Your task to perform on an android device: show emergency info Image 0: 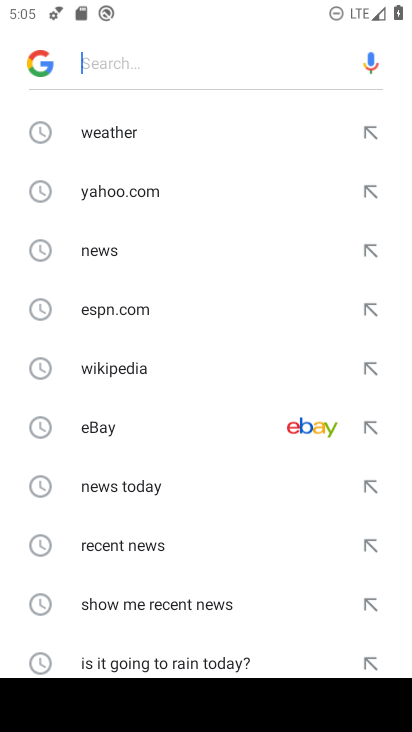
Step 0: press home button
Your task to perform on an android device: show emergency info Image 1: 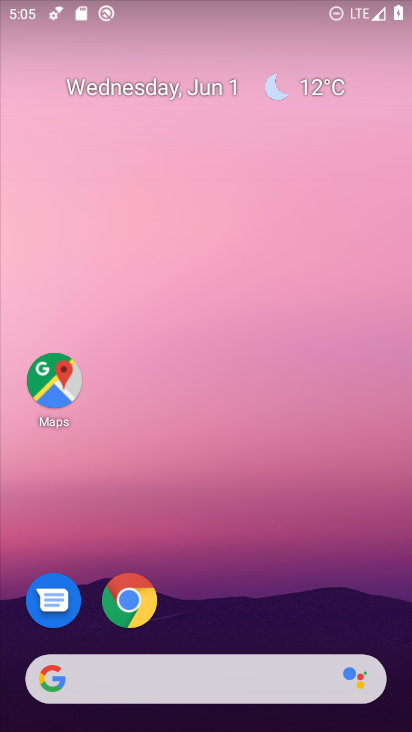
Step 1: drag from (369, 620) to (295, 209)
Your task to perform on an android device: show emergency info Image 2: 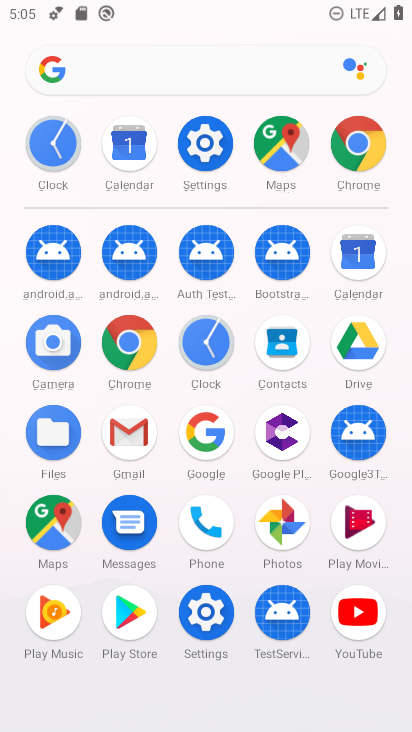
Step 2: click (208, 612)
Your task to perform on an android device: show emergency info Image 3: 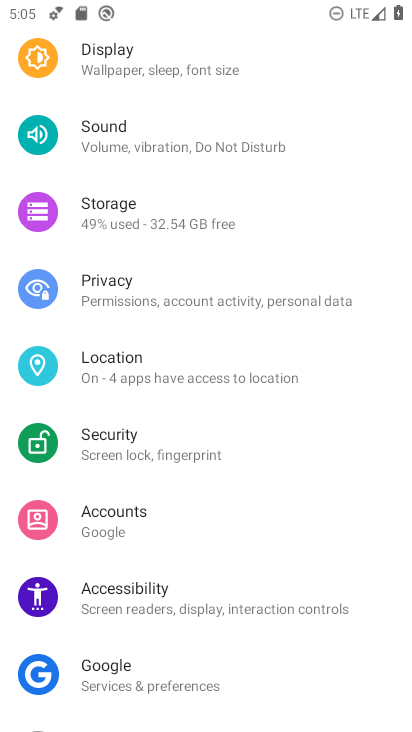
Step 3: drag from (358, 555) to (303, 108)
Your task to perform on an android device: show emergency info Image 4: 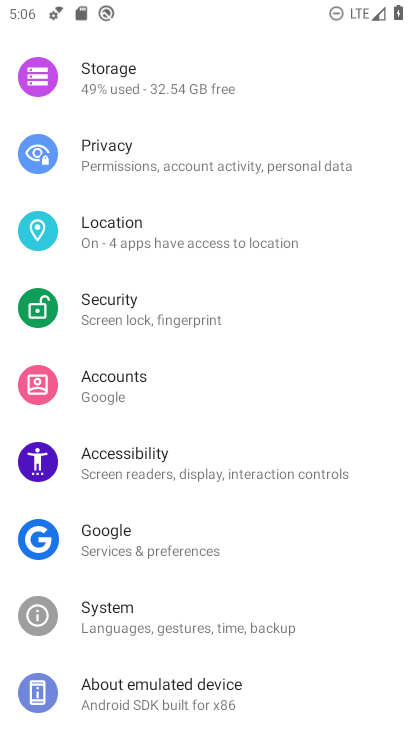
Step 4: click (178, 677)
Your task to perform on an android device: show emergency info Image 5: 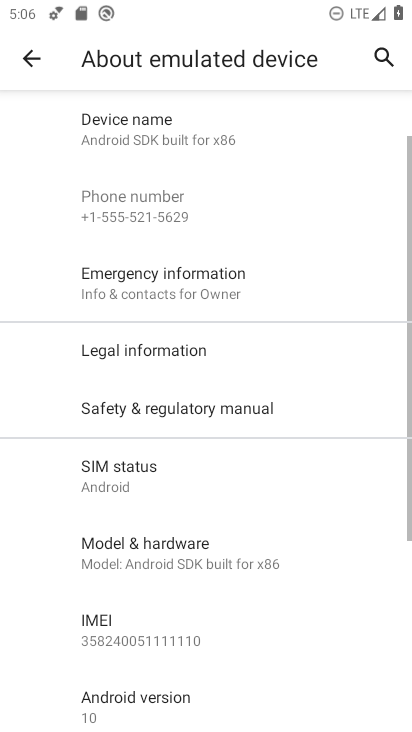
Step 5: drag from (360, 606) to (346, 525)
Your task to perform on an android device: show emergency info Image 6: 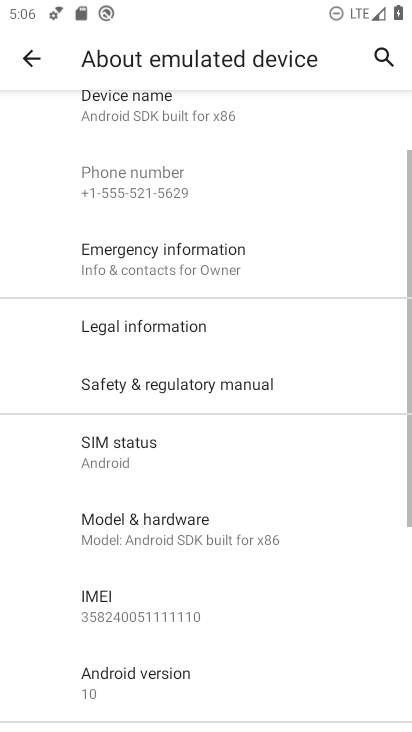
Step 6: click (140, 260)
Your task to perform on an android device: show emergency info Image 7: 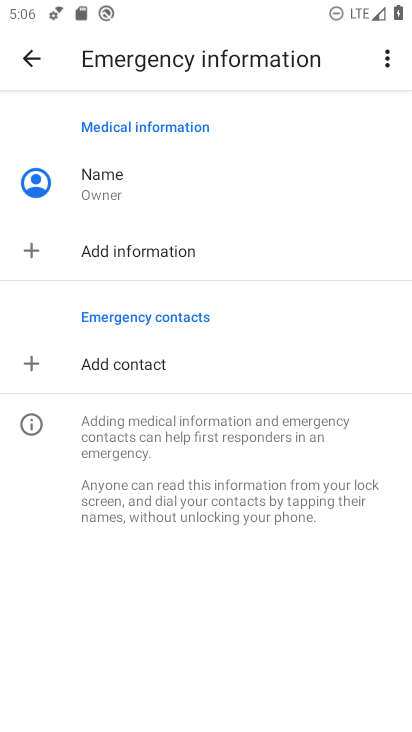
Step 7: task complete